Your task to perform on an android device: toggle show notifications on the lock screen Image 0: 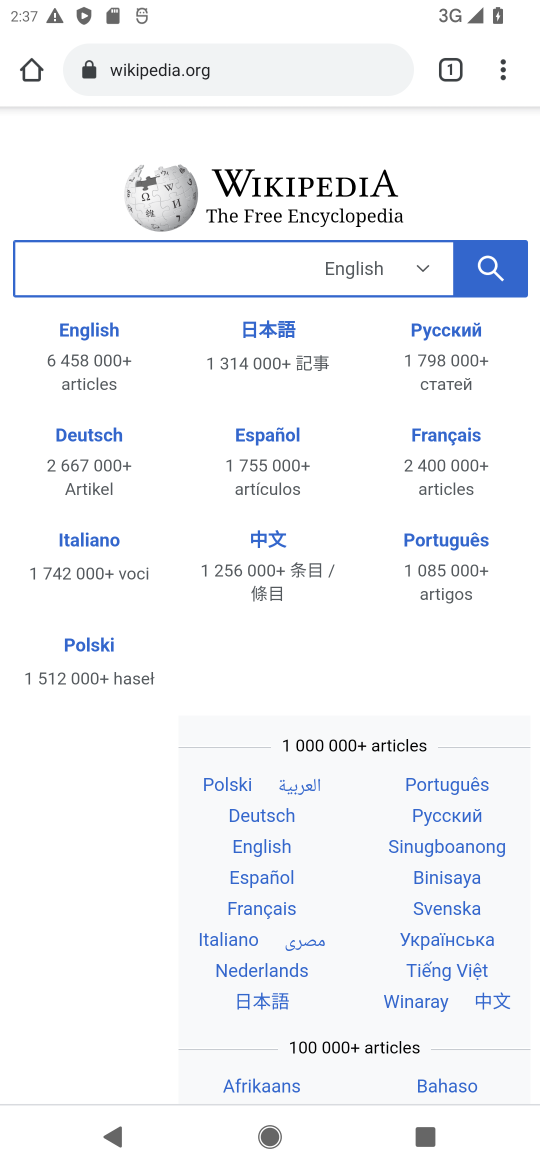
Step 0: press home button
Your task to perform on an android device: toggle show notifications on the lock screen Image 1: 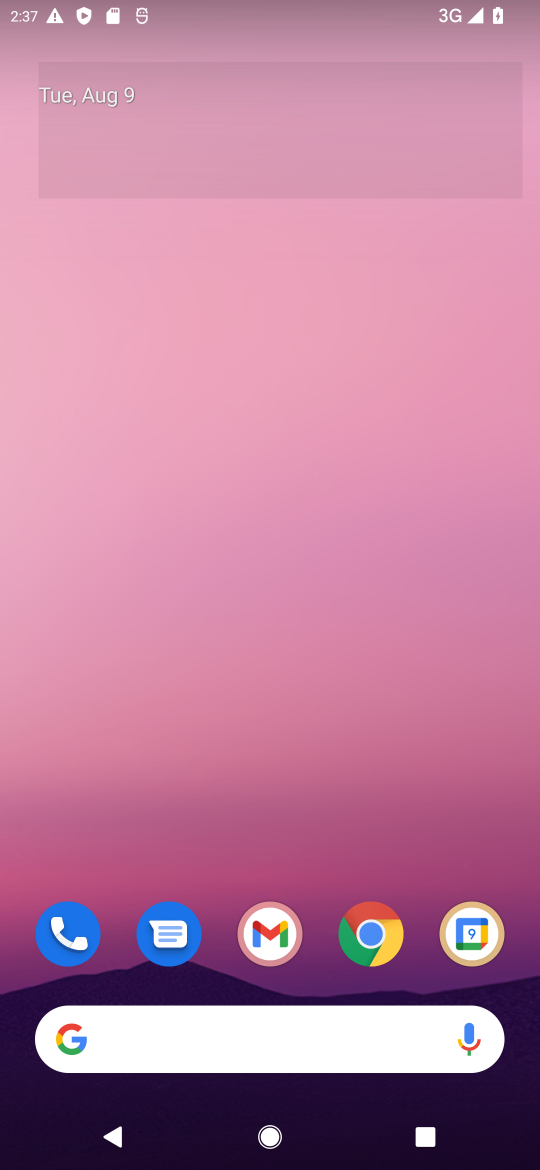
Step 1: drag from (320, 969) to (371, 76)
Your task to perform on an android device: toggle show notifications on the lock screen Image 2: 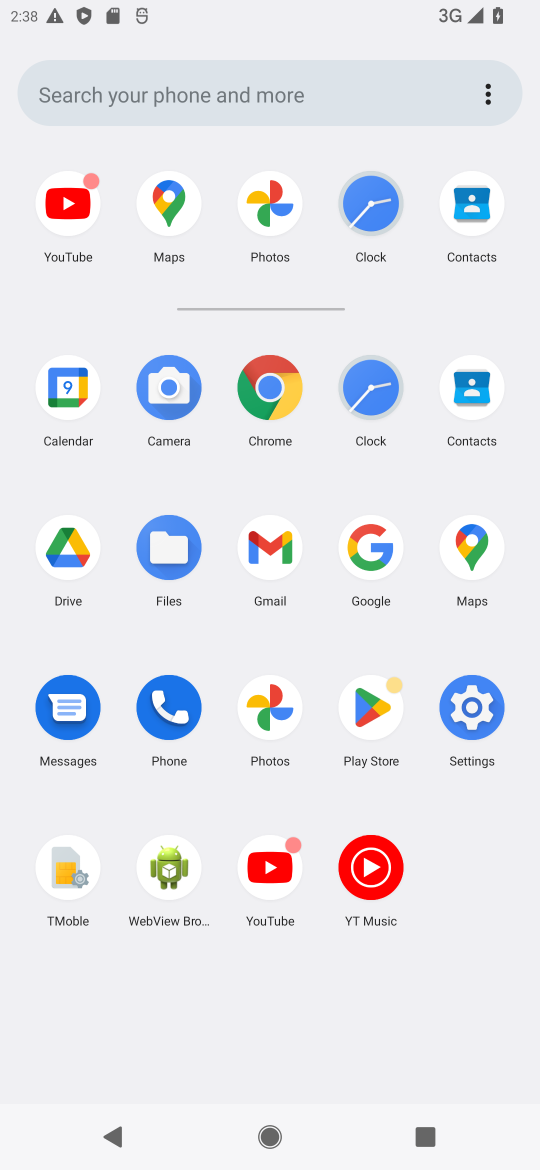
Step 2: click (476, 735)
Your task to perform on an android device: toggle show notifications on the lock screen Image 3: 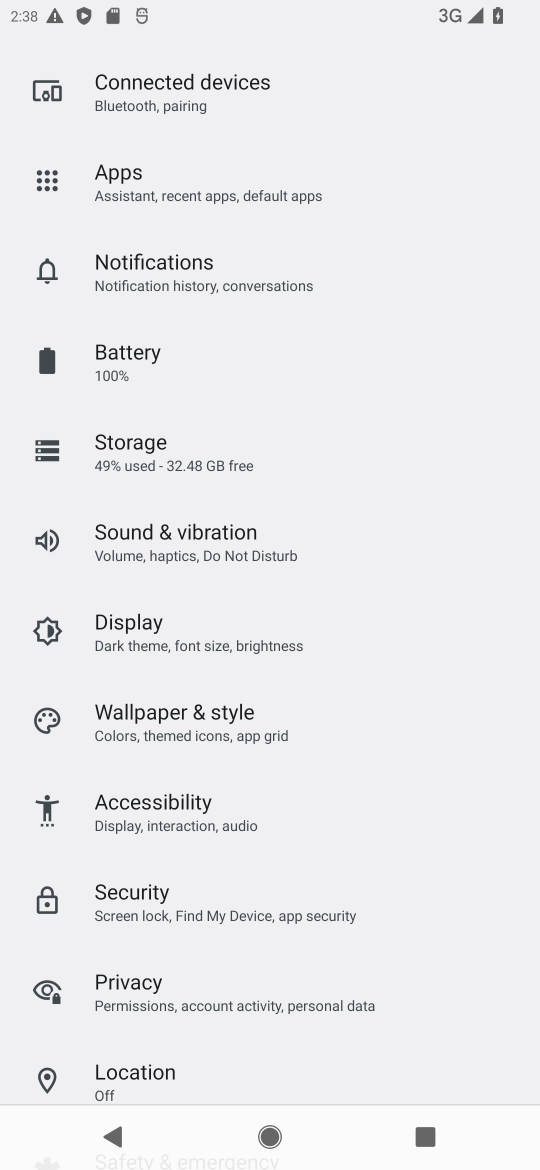
Step 3: task complete